Your task to perform on an android device: open app "ColorNote Notepad Notes" (install if not already installed) Image 0: 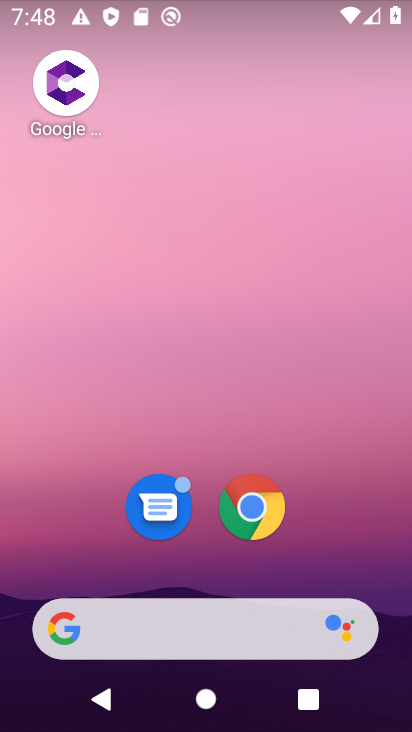
Step 0: drag from (376, 584) to (335, 264)
Your task to perform on an android device: open app "ColorNote Notepad Notes" (install if not already installed) Image 1: 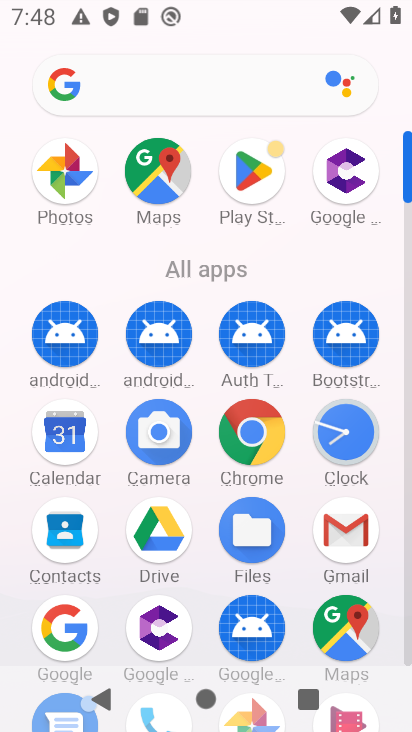
Step 1: click (249, 172)
Your task to perform on an android device: open app "ColorNote Notepad Notes" (install if not already installed) Image 2: 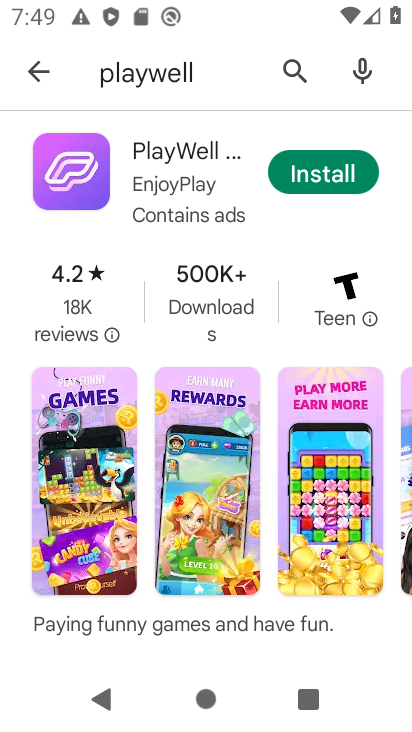
Step 2: click (288, 71)
Your task to perform on an android device: open app "ColorNote Notepad Notes" (install if not already installed) Image 3: 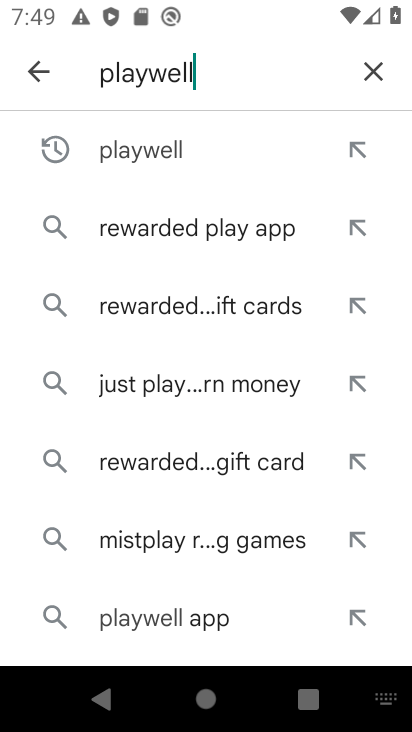
Step 3: click (378, 74)
Your task to perform on an android device: open app "ColorNote Notepad Notes" (install if not already installed) Image 4: 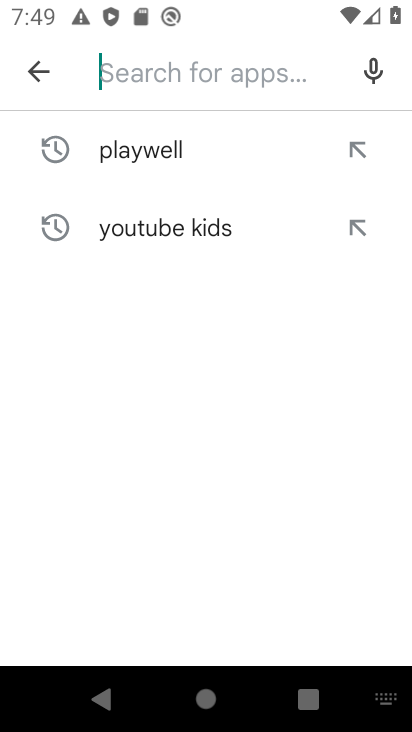
Step 4: type "ColorNote Notepad Notes"
Your task to perform on an android device: open app "ColorNote Notepad Notes" (install if not already installed) Image 5: 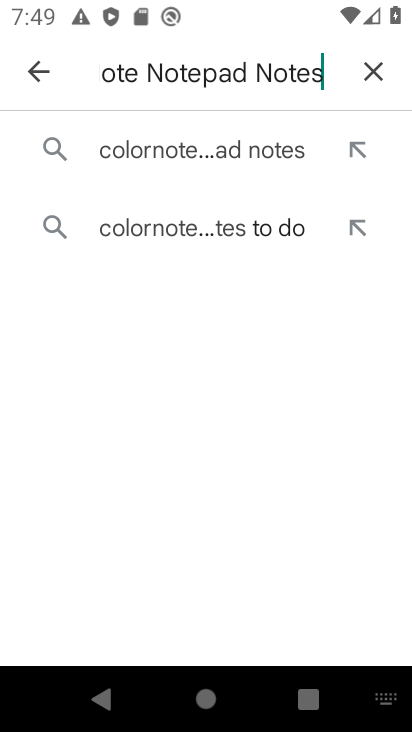
Step 5: click (225, 154)
Your task to perform on an android device: open app "ColorNote Notepad Notes" (install if not already installed) Image 6: 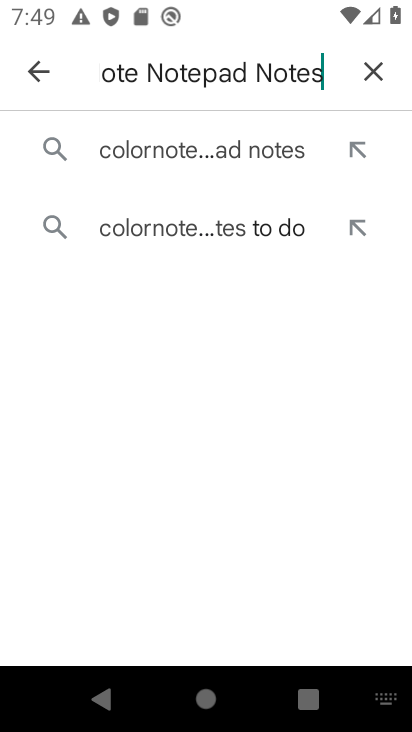
Step 6: click (225, 154)
Your task to perform on an android device: open app "ColorNote Notepad Notes" (install if not already installed) Image 7: 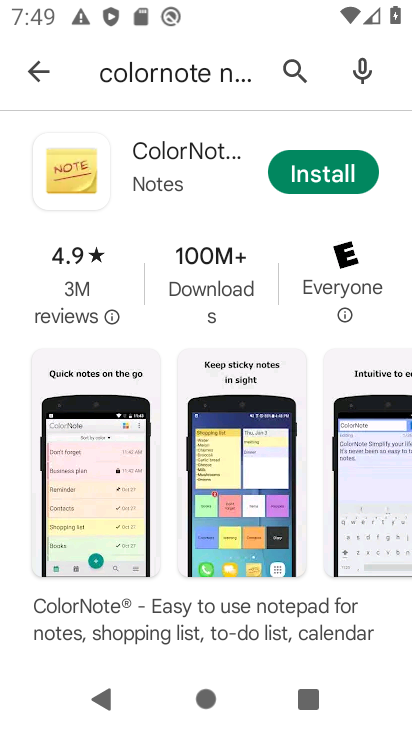
Step 7: click (339, 169)
Your task to perform on an android device: open app "ColorNote Notepad Notes" (install if not already installed) Image 8: 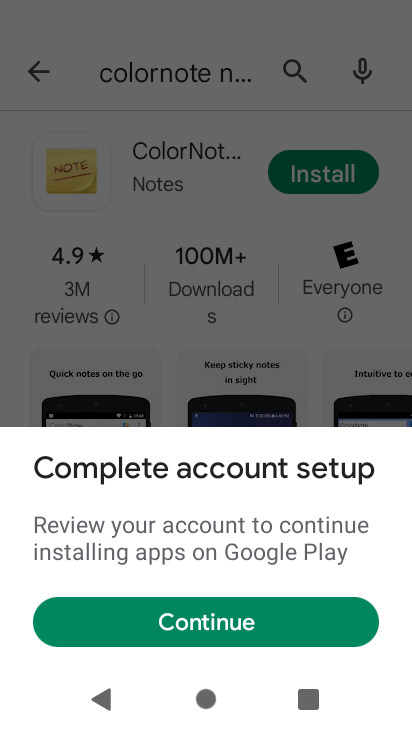
Step 8: click (332, 634)
Your task to perform on an android device: open app "ColorNote Notepad Notes" (install if not already installed) Image 9: 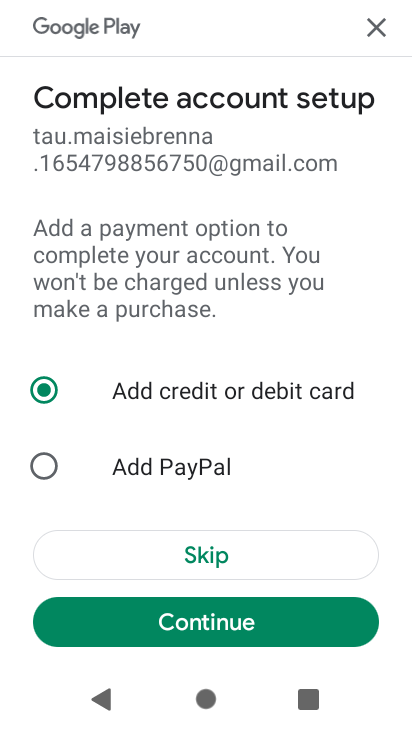
Step 9: click (282, 539)
Your task to perform on an android device: open app "ColorNote Notepad Notes" (install if not already installed) Image 10: 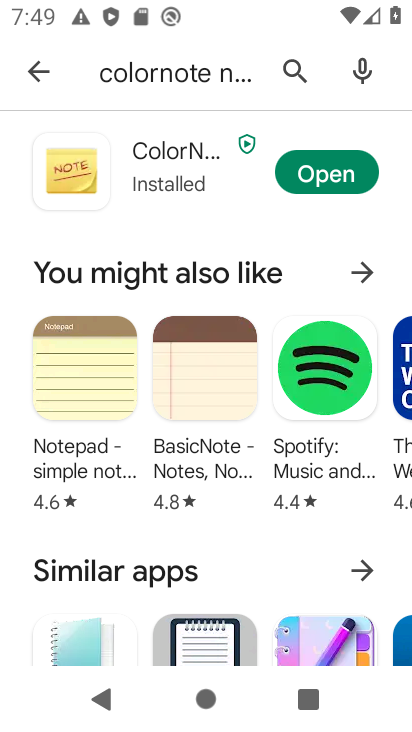
Step 10: click (333, 160)
Your task to perform on an android device: open app "ColorNote Notepad Notes" (install if not already installed) Image 11: 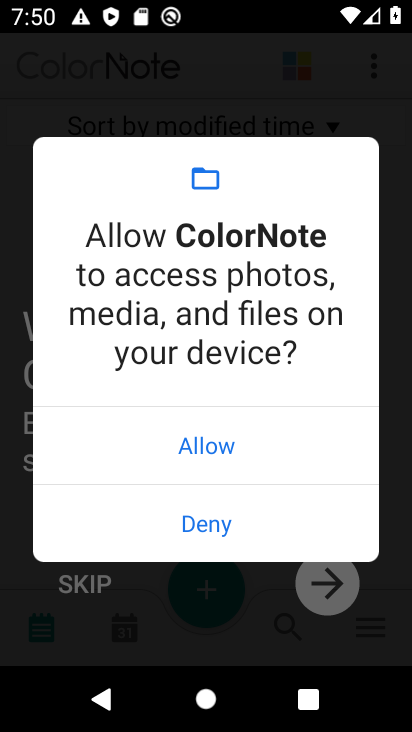
Step 11: click (186, 471)
Your task to perform on an android device: open app "ColorNote Notepad Notes" (install if not already installed) Image 12: 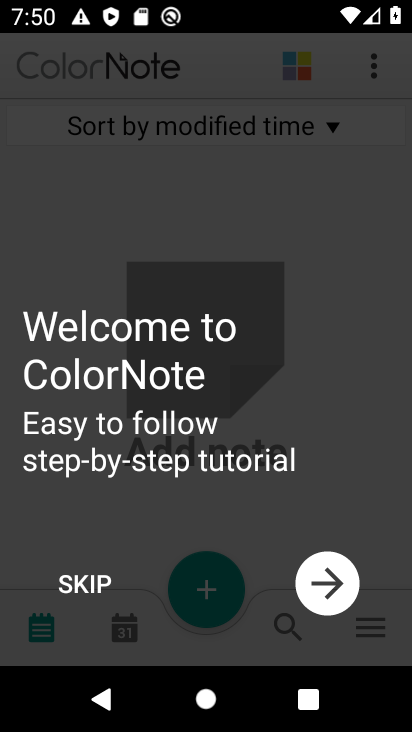
Step 12: click (109, 586)
Your task to perform on an android device: open app "ColorNote Notepad Notes" (install if not already installed) Image 13: 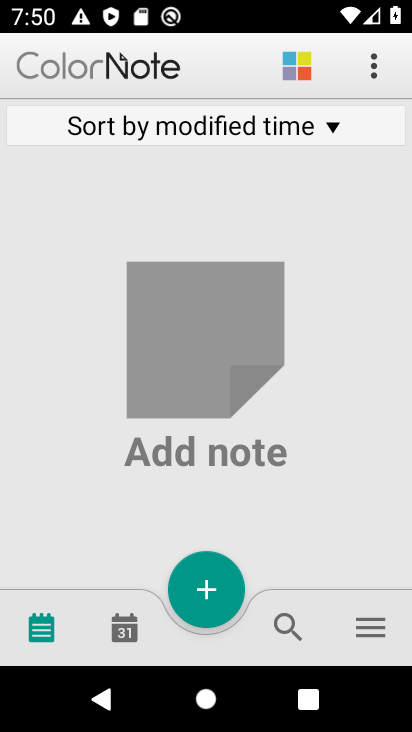
Step 13: task complete